Your task to perform on an android device: Go to Google maps Image 0: 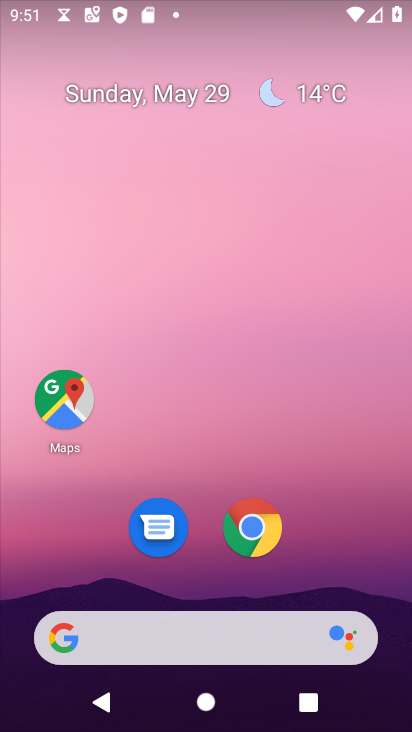
Step 0: press home button
Your task to perform on an android device: Go to Google maps Image 1: 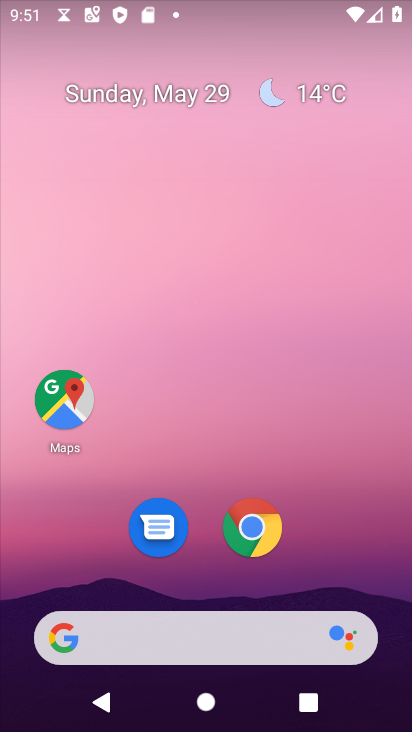
Step 1: click (67, 405)
Your task to perform on an android device: Go to Google maps Image 2: 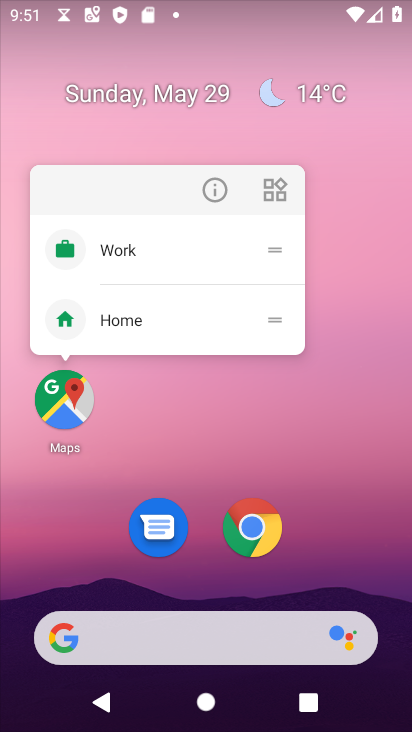
Step 2: click (57, 419)
Your task to perform on an android device: Go to Google maps Image 3: 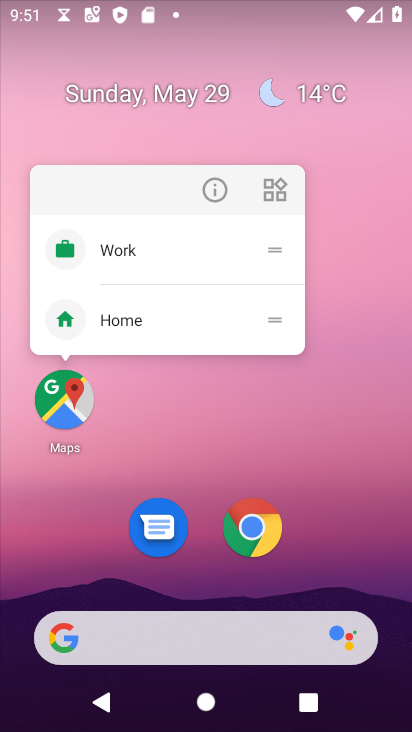
Step 3: click (57, 408)
Your task to perform on an android device: Go to Google maps Image 4: 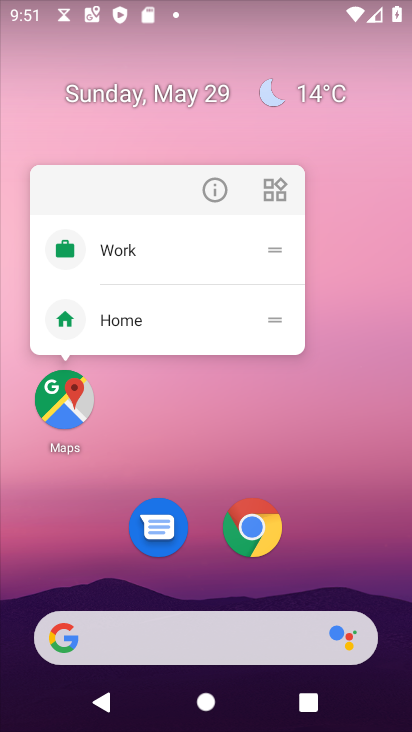
Step 4: click (66, 408)
Your task to perform on an android device: Go to Google maps Image 5: 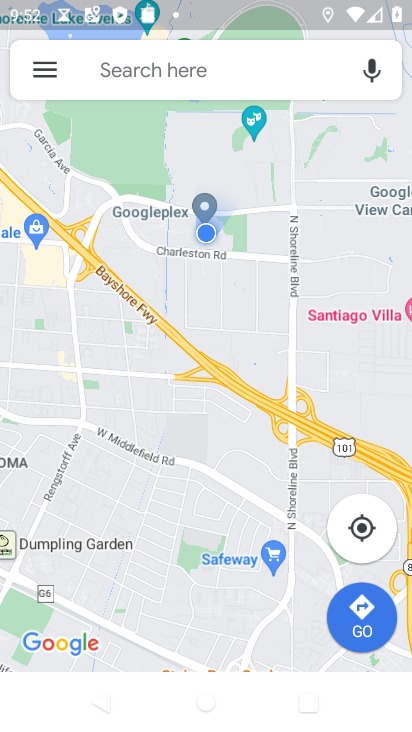
Step 5: task complete